Your task to perform on an android device: Is it going to rain today? Image 0: 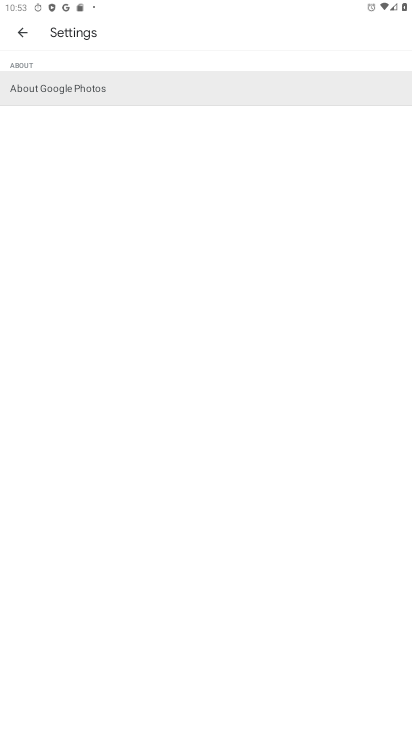
Step 0: press home button
Your task to perform on an android device: Is it going to rain today? Image 1: 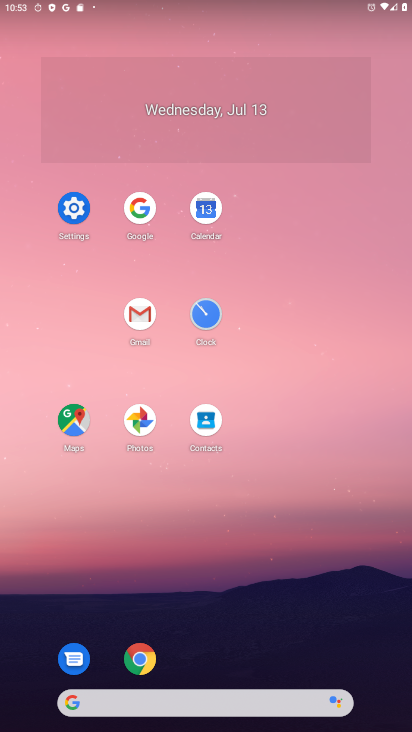
Step 1: click (137, 655)
Your task to perform on an android device: Is it going to rain today? Image 2: 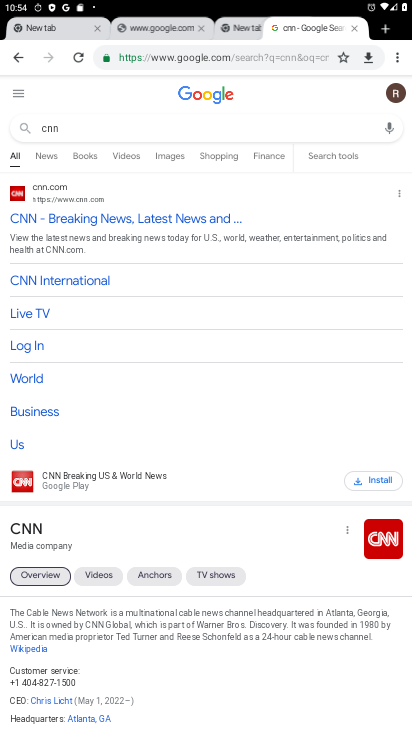
Step 2: click (325, 130)
Your task to perform on an android device: Is it going to rain today? Image 3: 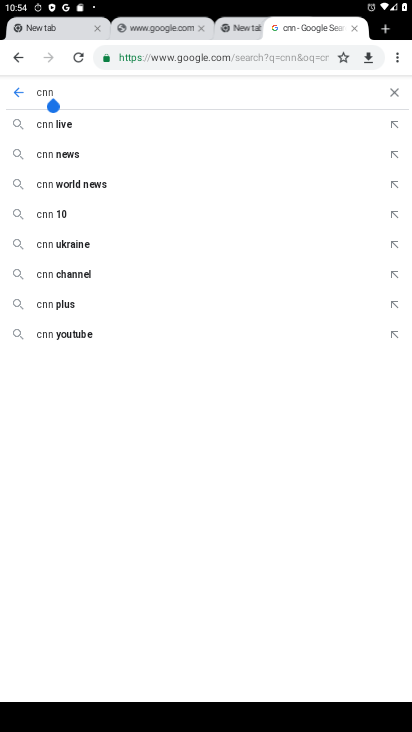
Step 3: click (395, 99)
Your task to perform on an android device: Is it going to rain today? Image 4: 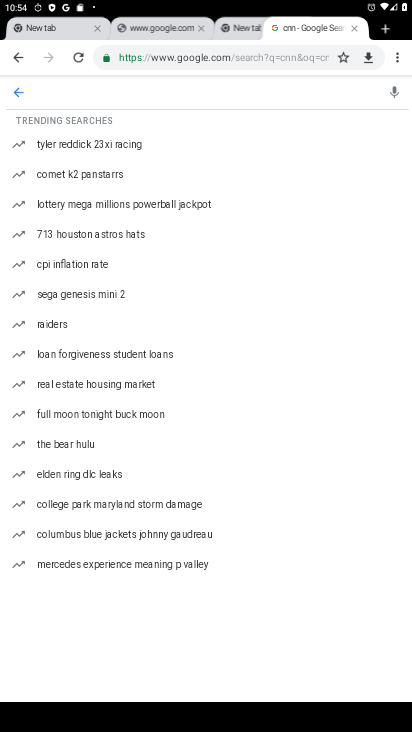
Step 4: click (235, 83)
Your task to perform on an android device: Is it going to rain today? Image 5: 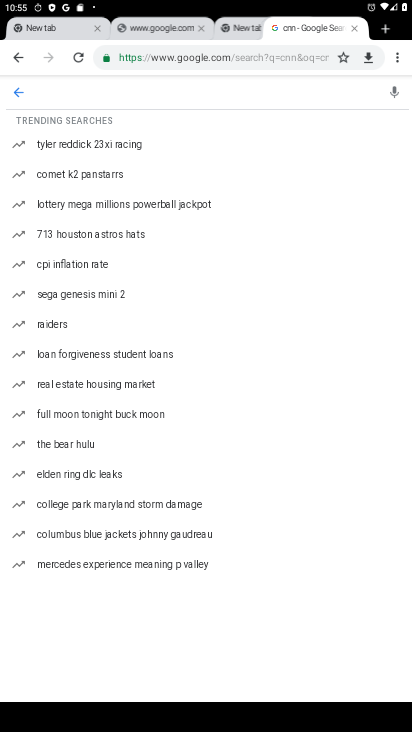
Step 5: type "weather"
Your task to perform on an android device: Is it going to rain today? Image 6: 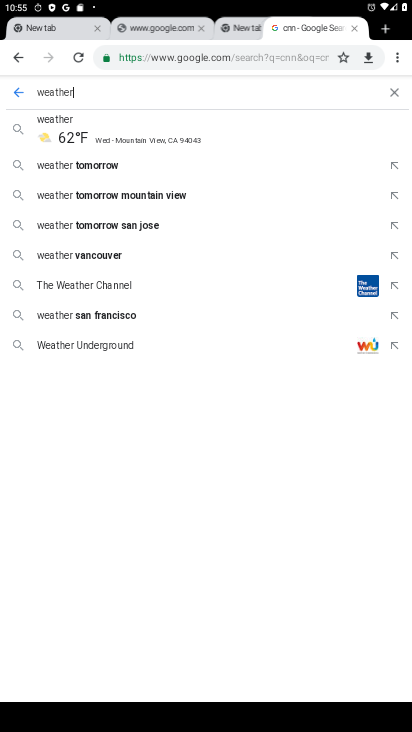
Step 6: click (120, 115)
Your task to perform on an android device: Is it going to rain today? Image 7: 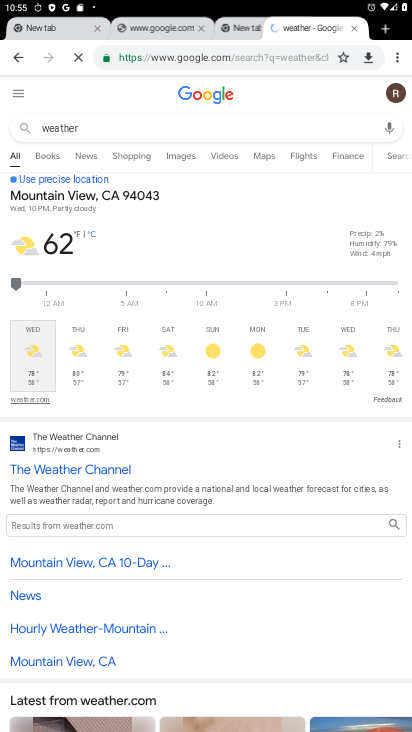
Step 7: task complete